Your task to perform on an android device: delete browsing data in the chrome app Image 0: 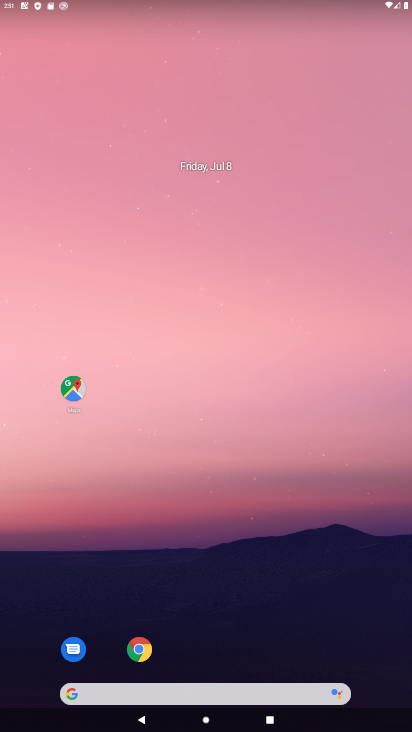
Step 0: drag from (191, 664) to (166, 82)
Your task to perform on an android device: delete browsing data in the chrome app Image 1: 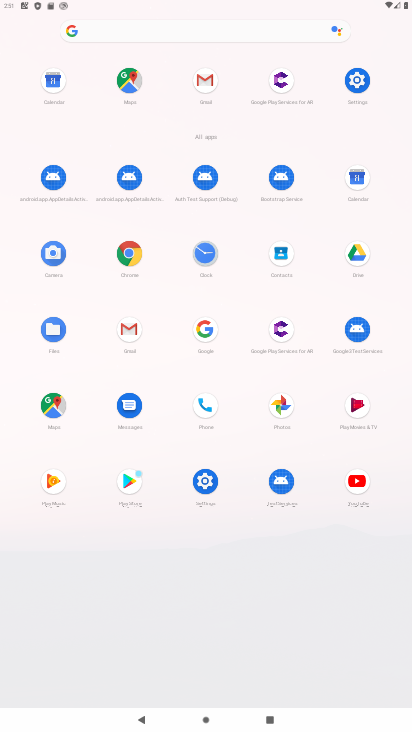
Step 1: click (130, 258)
Your task to perform on an android device: delete browsing data in the chrome app Image 2: 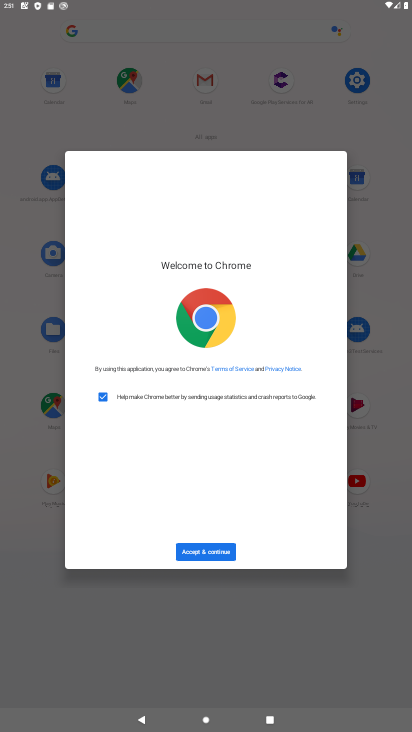
Step 2: click (224, 547)
Your task to perform on an android device: delete browsing data in the chrome app Image 3: 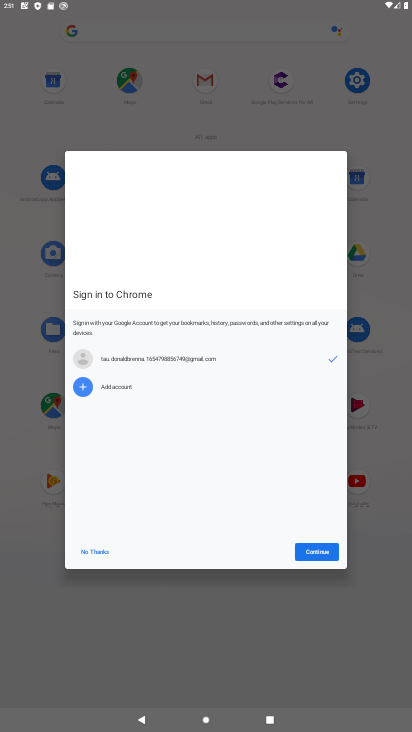
Step 3: click (328, 553)
Your task to perform on an android device: delete browsing data in the chrome app Image 4: 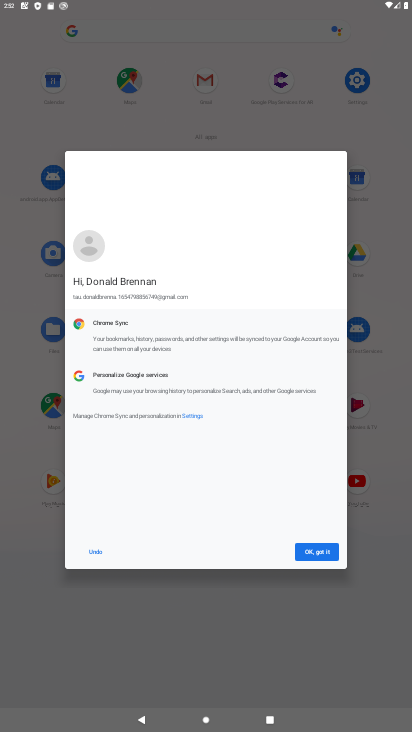
Step 4: click (321, 546)
Your task to perform on an android device: delete browsing data in the chrome app Image 5: 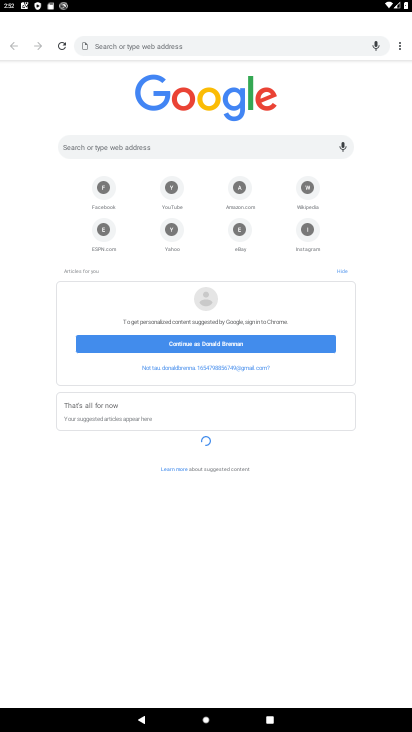
Step 5: click (389, 45)
Your task to perform on an android device: delete browsing data in the chrome app Image 6: 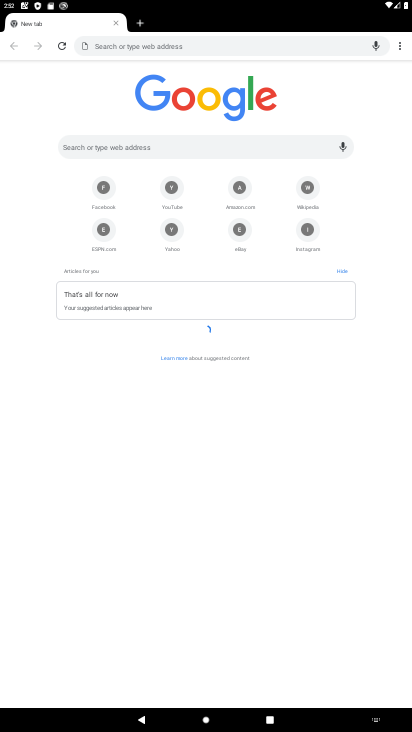
Step 6: click (395, 45)
Your task to perform on an android device: delete browsing data in the chrome app Image 7: 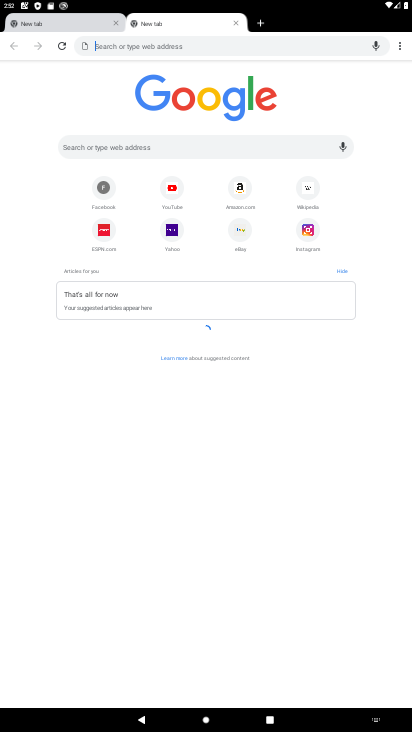
Step 7: drag from (396, 44) to (305, 136)
Your task to perform on an android device: delete browsing data in the chrome app Image 8: 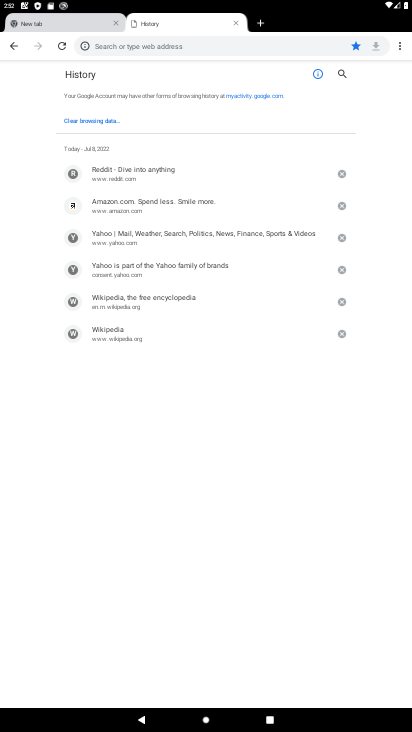
Step 8: click (101, 120)
Your task to perform on an android device: delete browsing data in the chrome app Image 9: 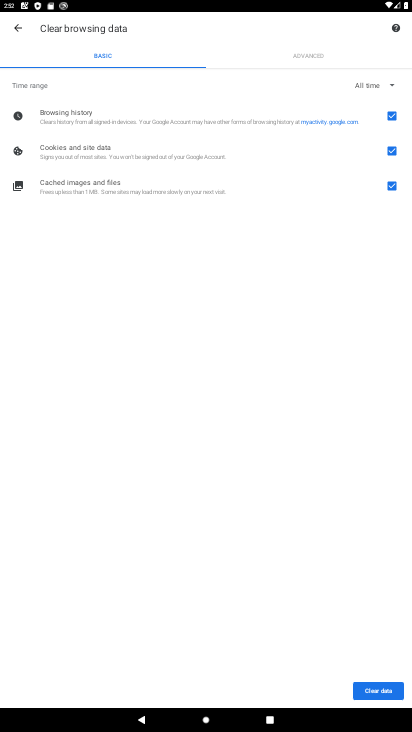
Step 9: click (391, 681)
Your task to perform on an android device: delete browsing data in the chrome app Image 10: 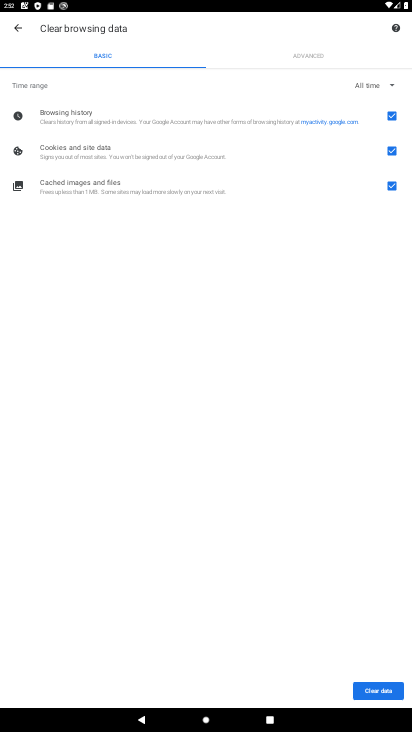
Step 10: click (395, 689)
Your task to perform on an android device: delete browsing data in the chrome app Image 11: 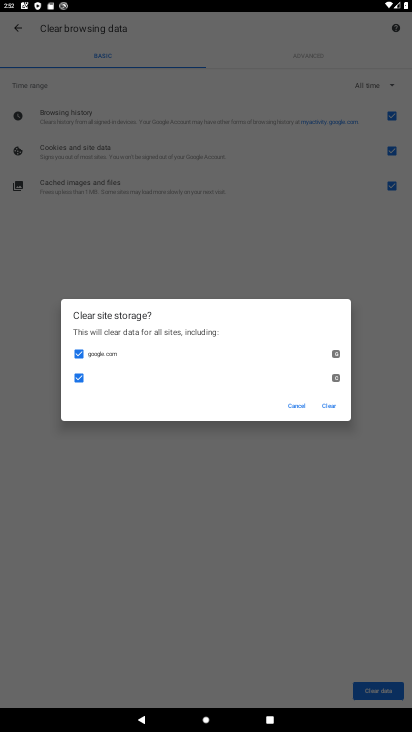
Step 11: click (327, 396)
Your task to perform on an android device: delete browsing data in the chrome app Image 12: 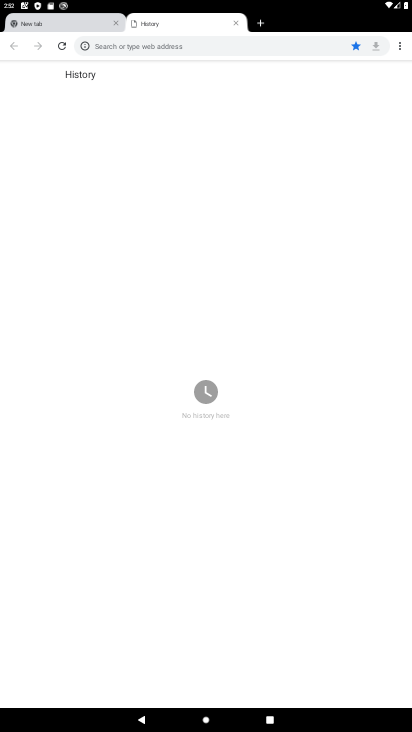
Step 12: task complete